Your task to perform on an android device: toggle airplane mode Image 0: 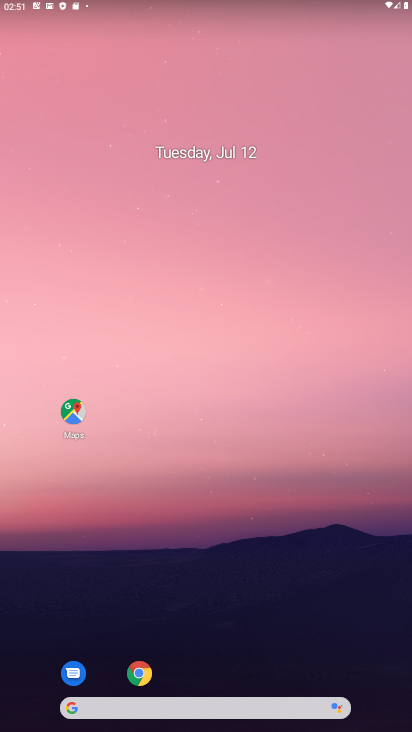
Step 0: press home button
Your task to perform on an android device: toggle airplane mode Image 1: 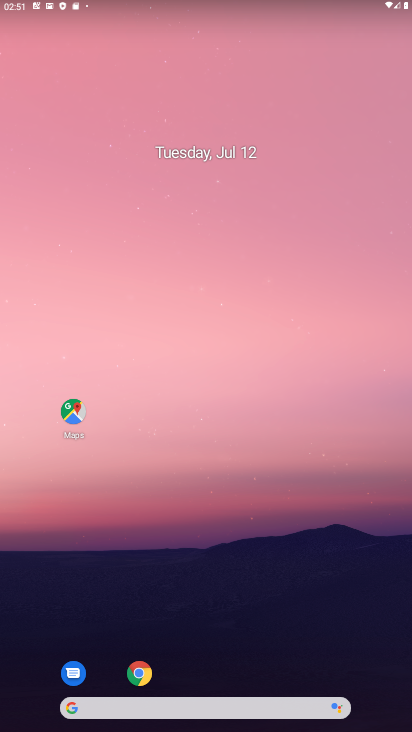
Step 1: drag from (283, 2) to (274, 191)
Your task to perform on an android device: toggle airplane mode Image 2: 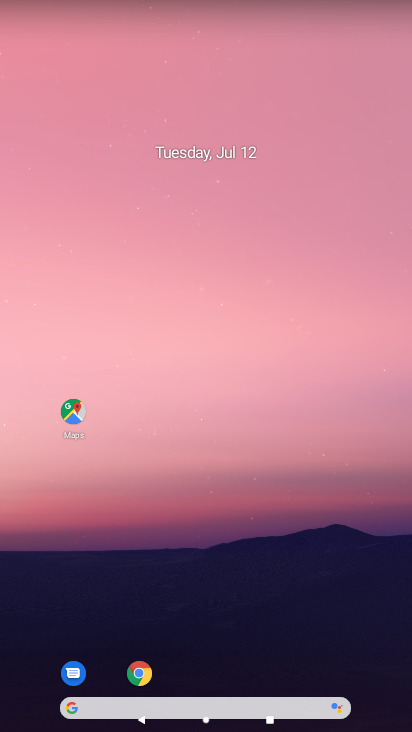
Step 2: click (365, 60)
Your task to perform on an android device: toggle airplane mode Image 3: 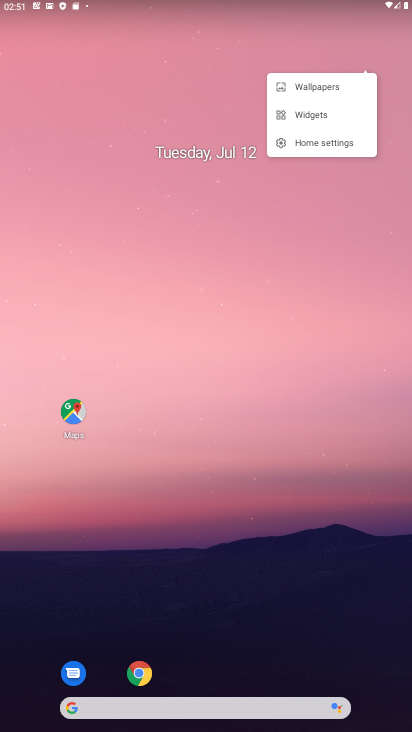
Step 3: drag from (342, 2) to (325, 218)
Your task to perform on an android device: toggle airplane mode Image 4: 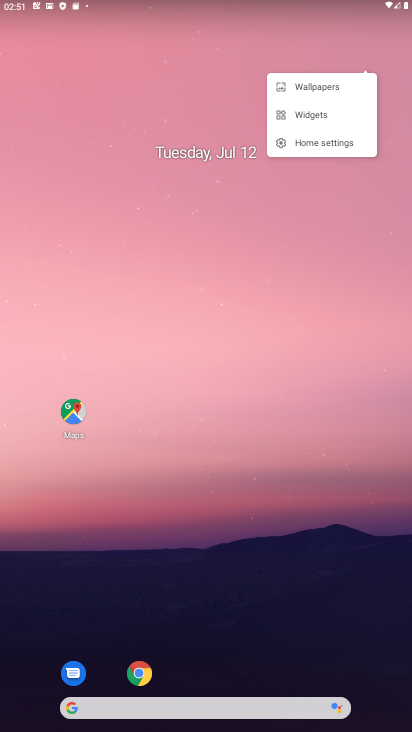
Step 4: drag from (345, 0) to (320, 269)
Your task to perform on an android device: toggle airplane mode Image 5: 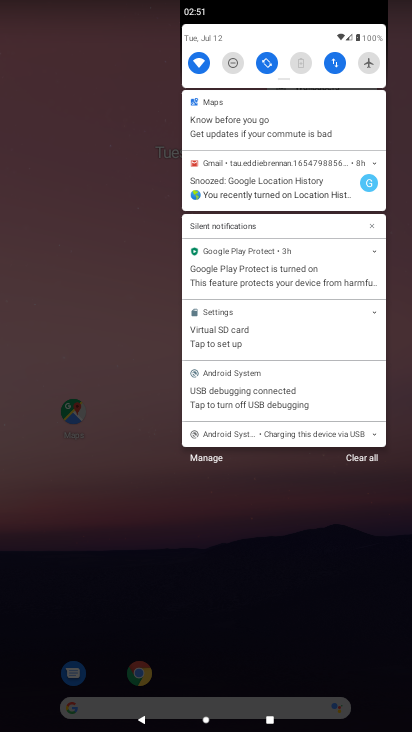
Step 5: click (364, 59)
Your task to perform on an android device: toggle airplane mode Image 6: 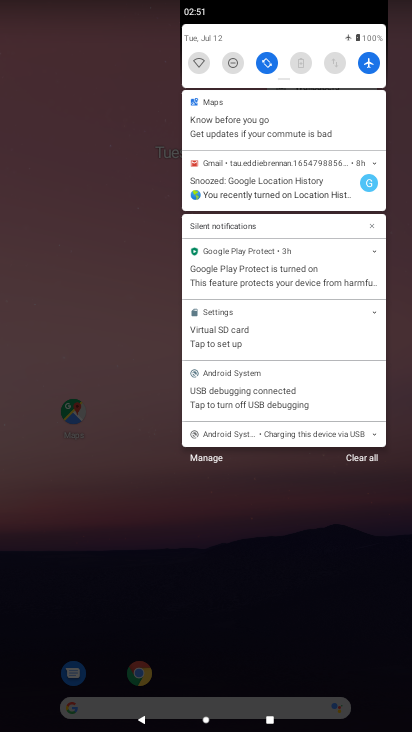
Step 6: task complete